Your task to perform on an android device: clear all cookies in the chrome app Image 0: 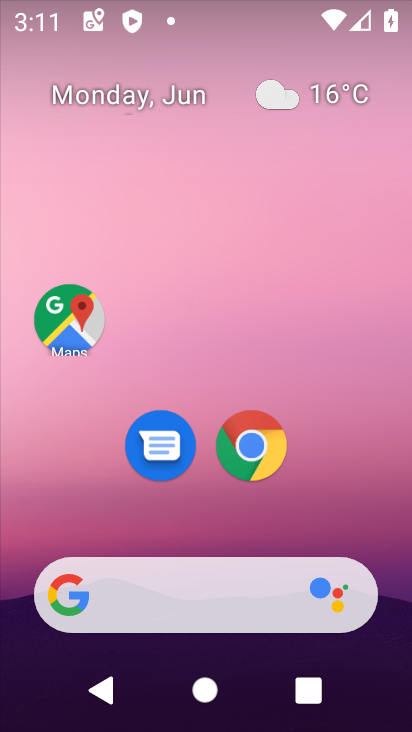
Step 0: drag from (294, 553) to (317, 291)
Your task to perform on an android device: clear all cookies in the chrome app Image 1: 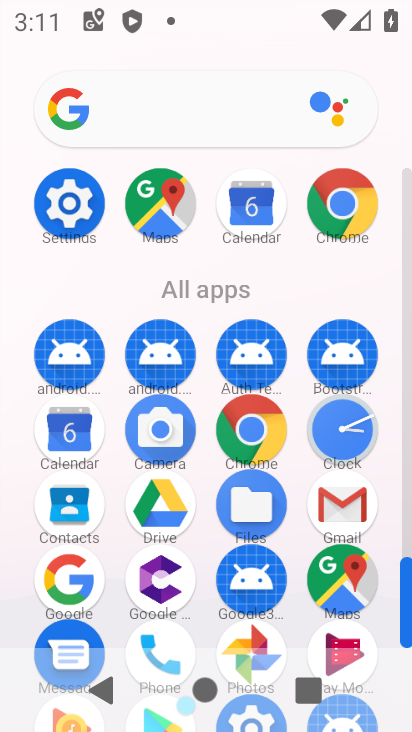
Step 1: click (331, 189)
Your task to perform on an android device: clear all cookies in the chrome app Image 2: 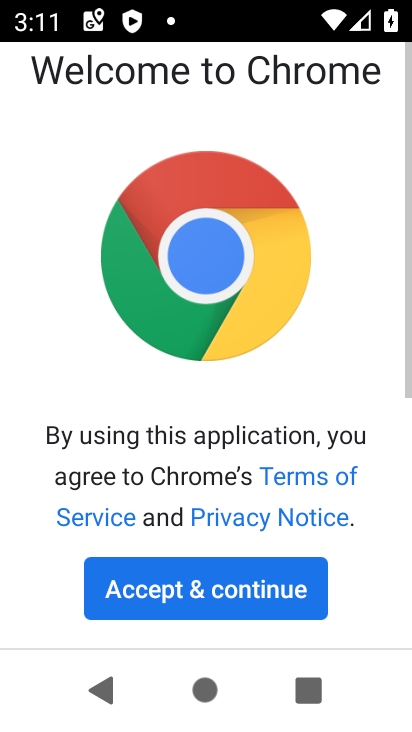
Step 2: click (214, 591)
Your task to perform on an android device: clear all cookies in the chrome app Image 3: 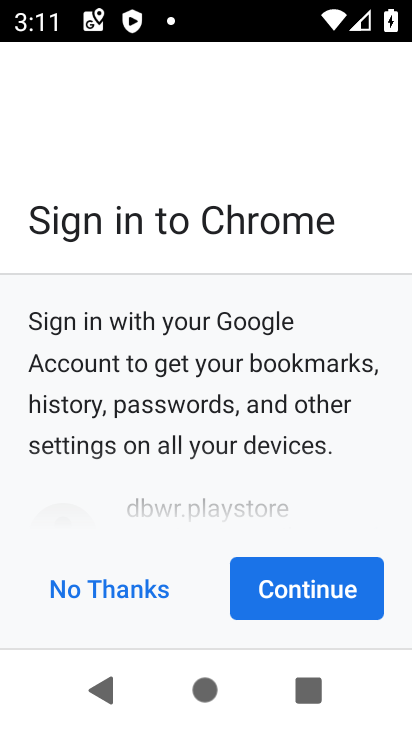
Step 3: click (296, 565)
Your task to perform on an android device: clear all cookies in the chrome app Image 4: 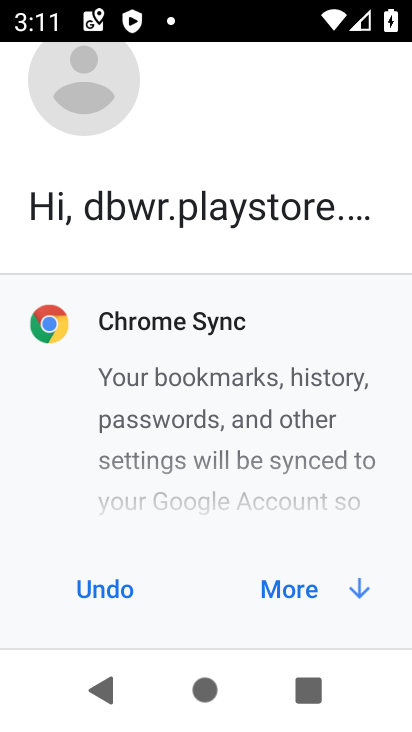
Step 4: click (277, 589)
Your task to perform on an android device: clear all cookies in the chrome app Image 5: 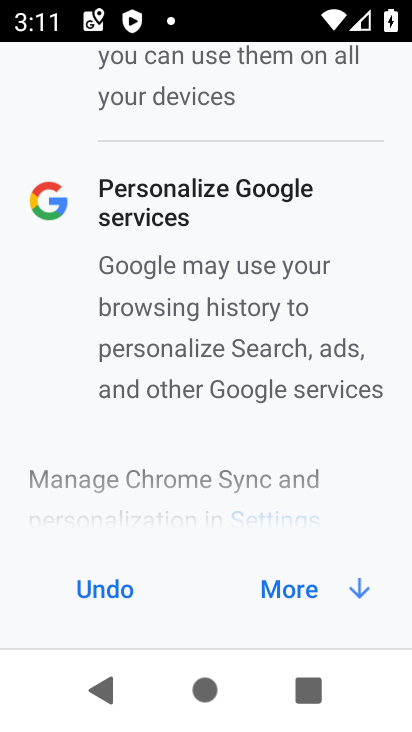
Step 5: click (282, 584)
Your task to perform on an android device: clear all cookies in the chrome app Image 6: 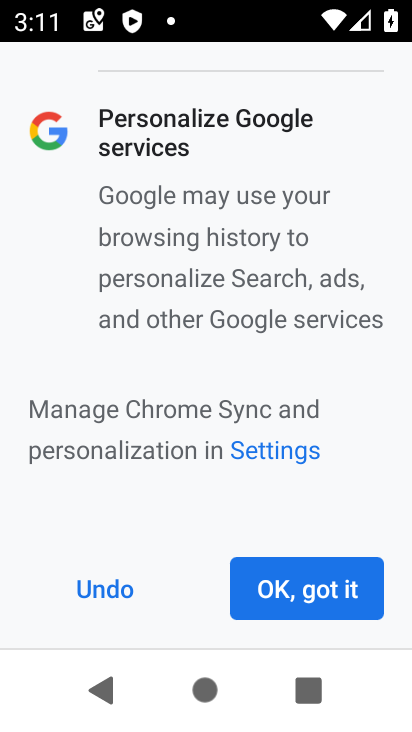
Step 6: click (282, 584)
Your task to perform on an android device: clear all cookies in the chrome app Image 7: 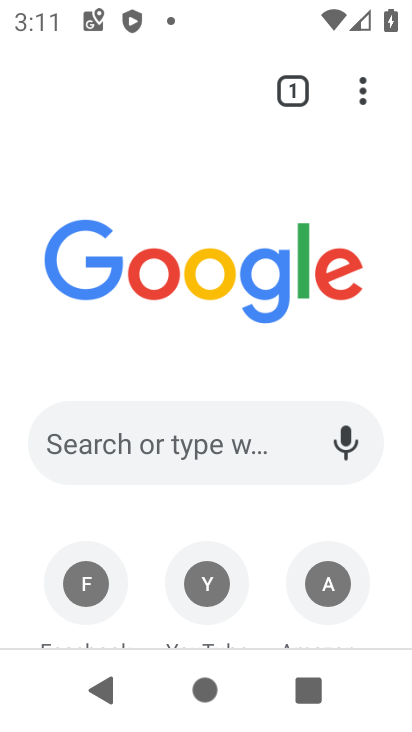
Step 7: click (378, 70)
Your task to perform on an android device: clear all cookies in the chrome app Image 8: 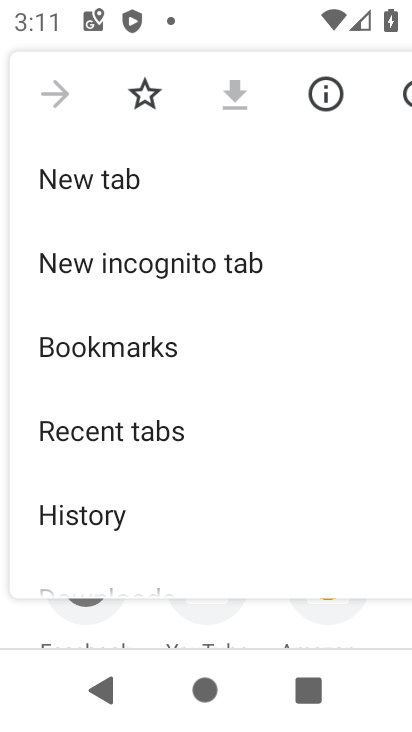
Step 8: drag from (272, 510) to (264, 199)
Your task to perform on an android device: clear all cookies in the chrome app Image 9: 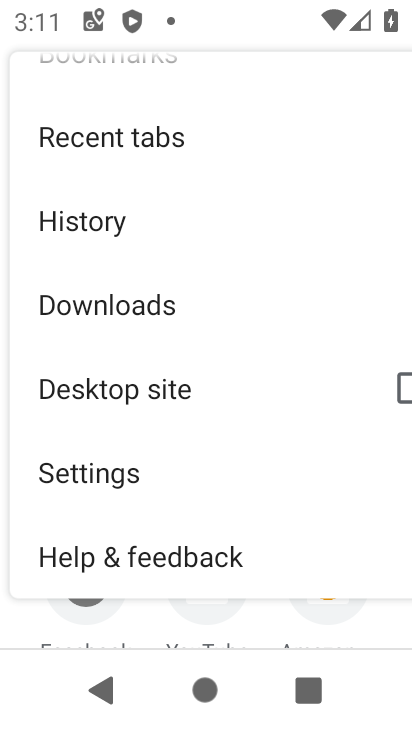
Step 9: click (93, 481)
Your task to perform on an android device: clear all cookies in the chrome app Image 10: 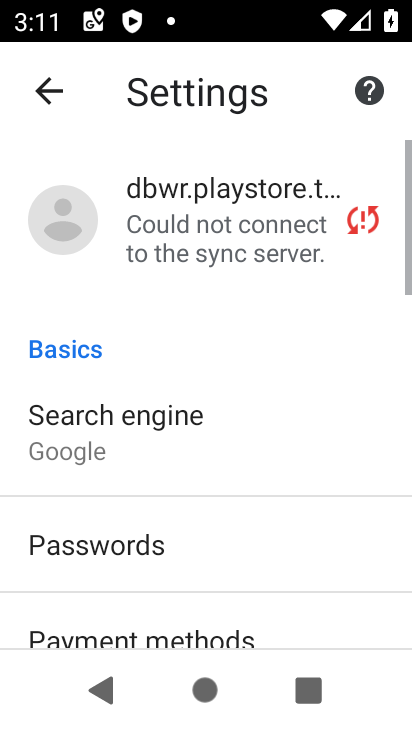
Step 10: drag from (141, 558) to (209, 141)
Your task to perform on an android device: clear all cookies in the chrome app Image 11: 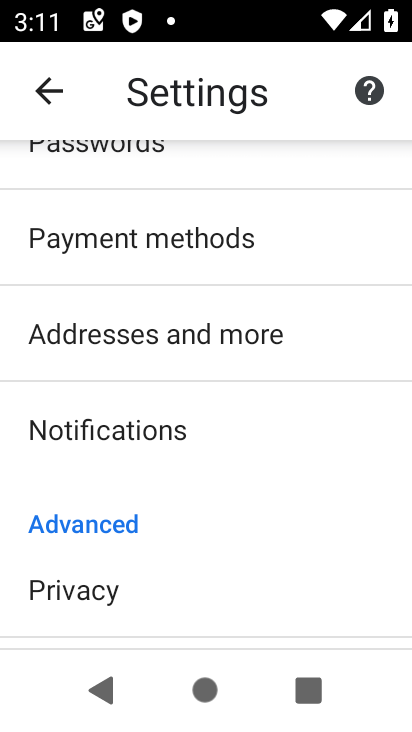
Step 11: click (113, 578)
Your task to perform on an android device: clear all cookies in the chrome app Image 12: 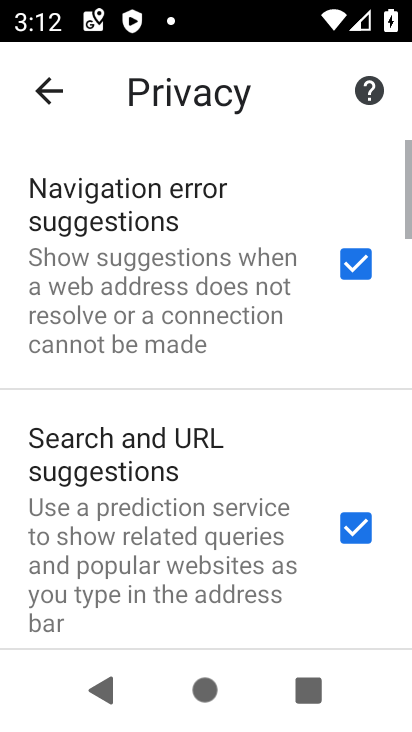
Step 12: click (79, 591)
Your task to perform on an android device: clear all cookies in the chrome app Image 13: 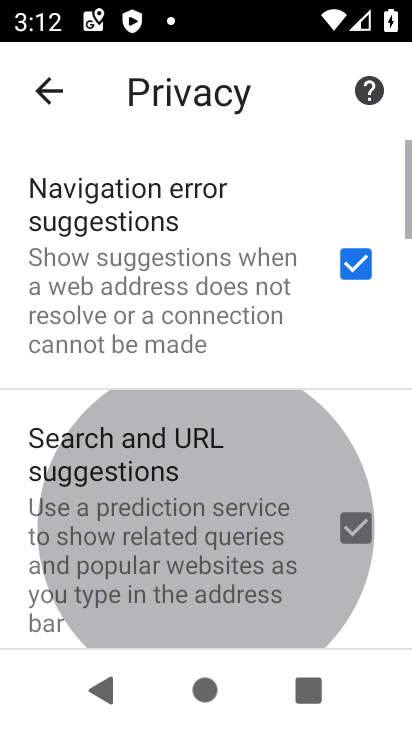
Step 13: drag from (98, 575) to (137, 223)
Your task to perform on an android device: clear all cookies in the chrome app Image 14: 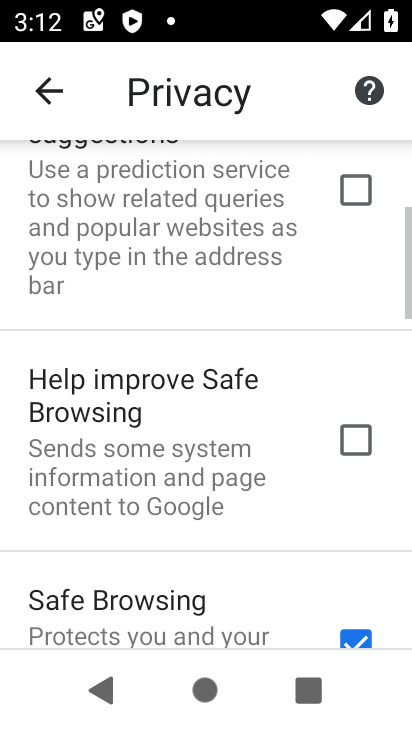
Step 14: drag from (176, 522) to (209, 187)
Your task to perform on an android device: clear all cookies in the chrome app Image 15: 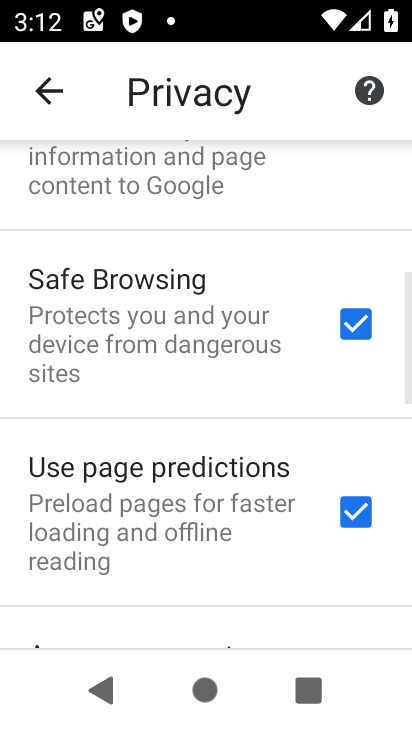
Step 15: drag from (213, 521) to (212, 199)
Your task to perform on an android device: clear all cookies in the chrome app Image 16: 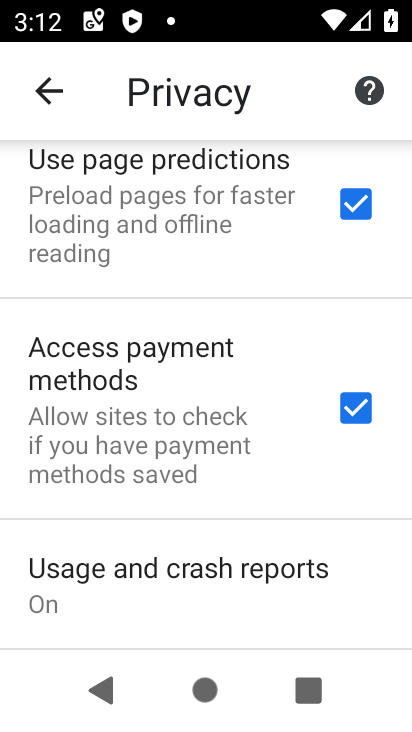
Step 16: drag from (191, 576) to (182, 211)
Your task to perform on an android device: clear all cookies in the chrome app Image 17: 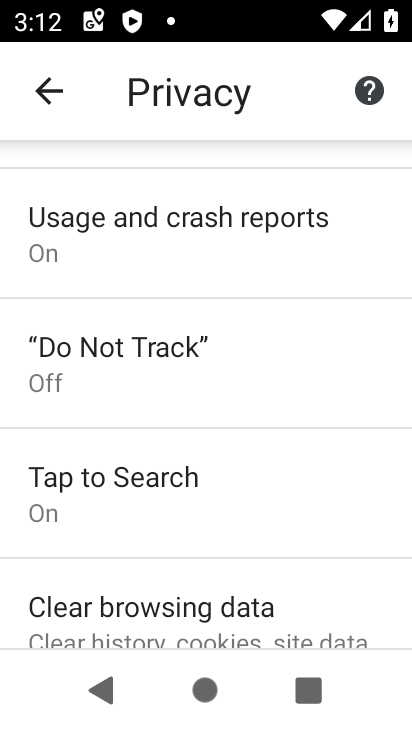
Step 17: click (218, 622)
Your task to perform on an android device: clear all cookies in the chrome app Image 18: 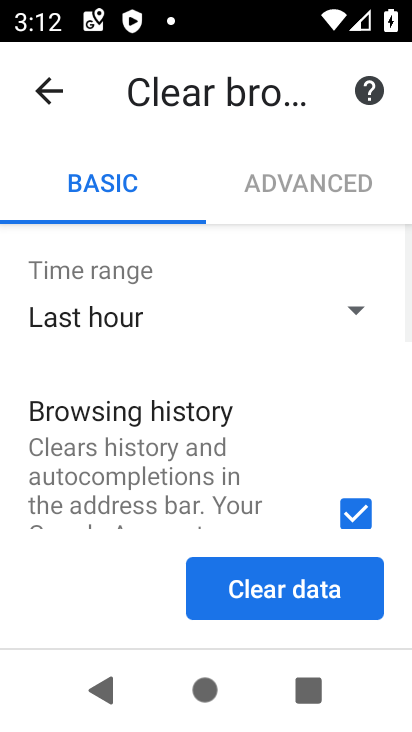
Step 18: click (256, 589)
Your task to perform on an android device: clear all cookies in the chrome app Image 19: 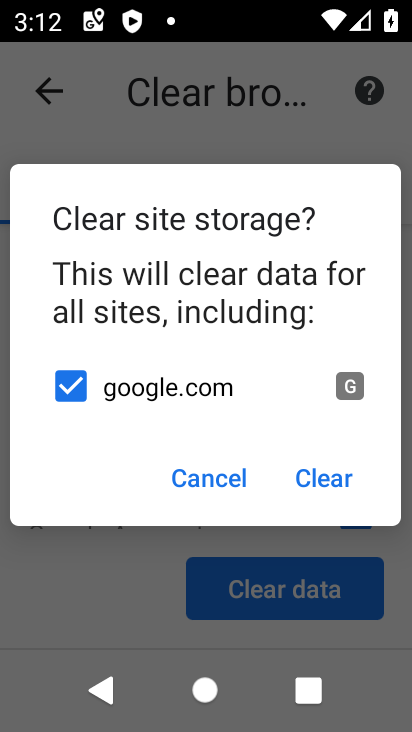
Step 19: click (309, 475)
Your task to perform on an android device: clear all cookies in the chrome app Image 20: 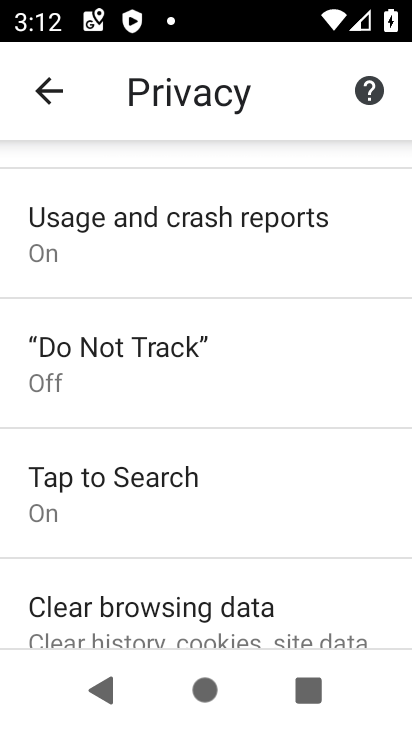
Step 20: task complete